Your task to perform on an android device: Go to Android settings Image 0: 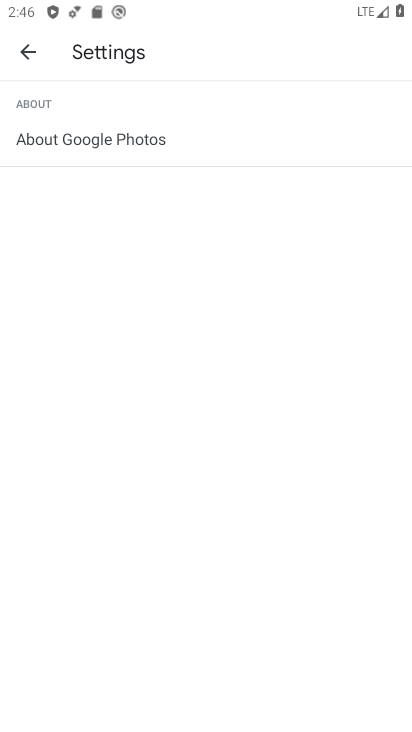
Step 0: press home button
Your task to perform on an android device: Go to Android settings Image 1: 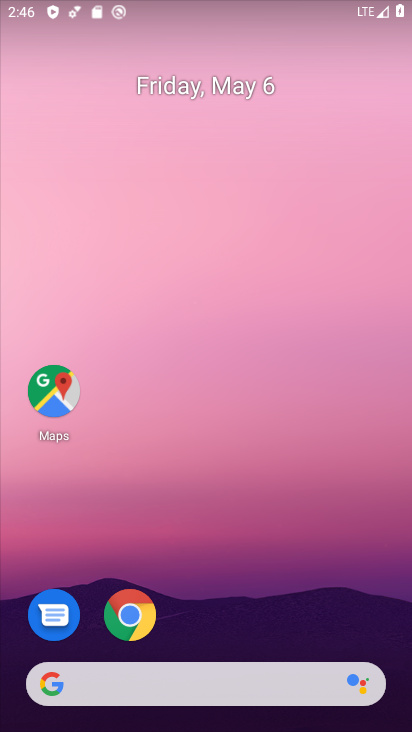
Step 1: drag from (236, 610) to (261, 46)
Your task to perform on an android device: Go to Android settings Image 2: 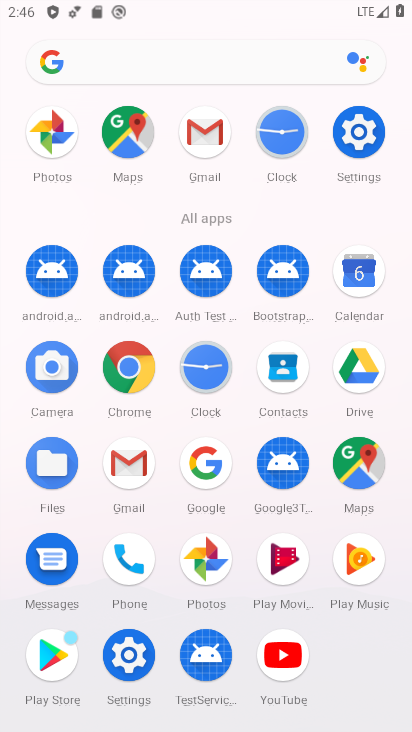
Step 2: click (122, 647)
Your task to perform on an android device: Go to Android settings Image 3: 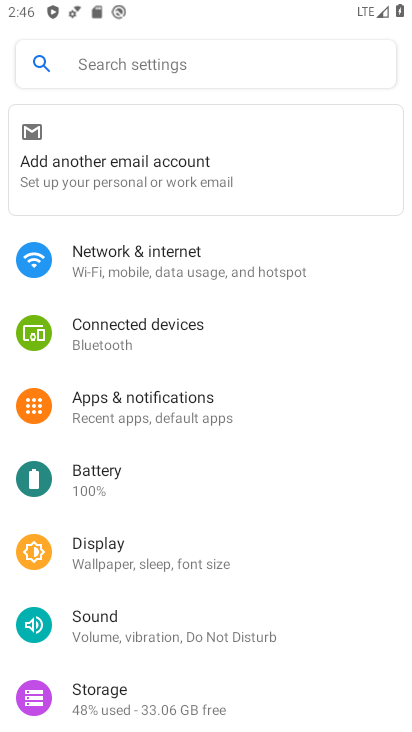
Step 3: drag from (172, 593) to (223, 316)
Your task to perform on an android device: Go to Android settings Image 4: 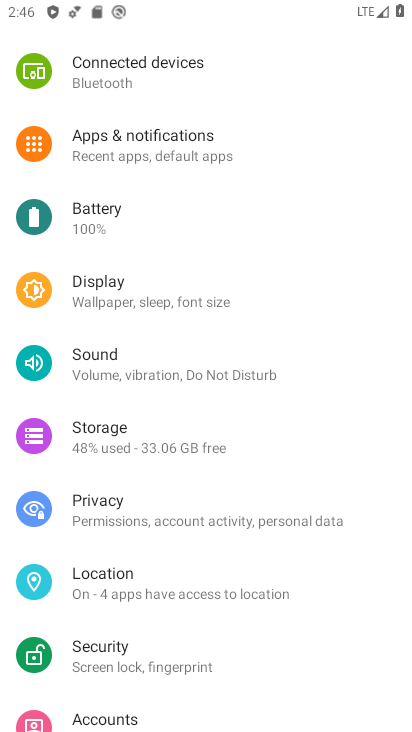
Step 4: drag from (245, 582) to (298, 187)
Your task to perform on an android device: Go to Android settings Image 5: 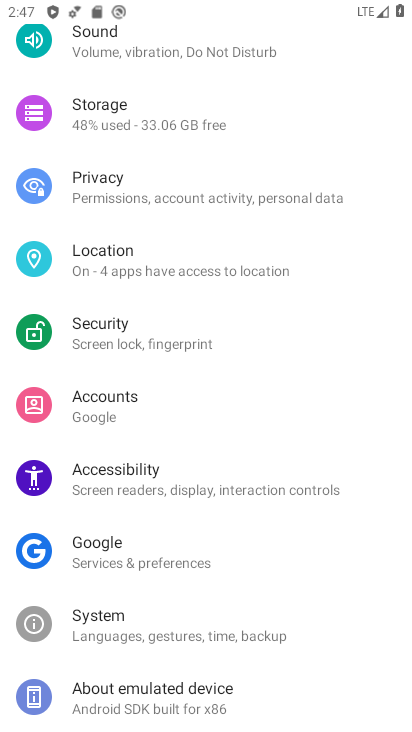
Step 5: drag from (145, 691) to (146, 577)
Your task to perform on an android device: Go to Android settings Image 6: 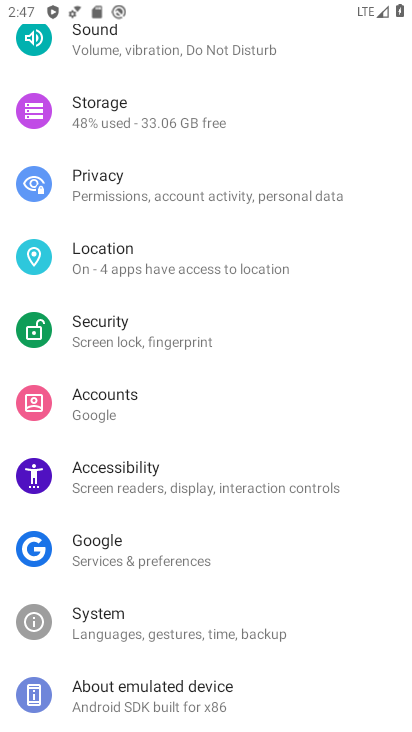
Step 6: click (137, 691)
Your task to perform on an android device: Go to Android settings Image 7: 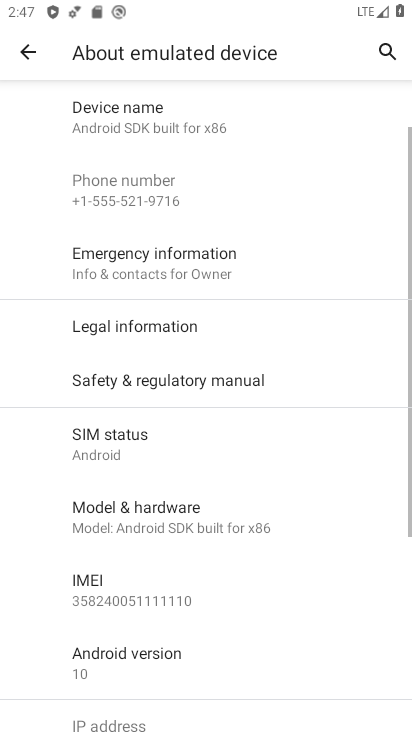
Step 7: drag from (182, 551) to (187, 317)
Your task to perform on an android device: Go to Android settings Image 8: 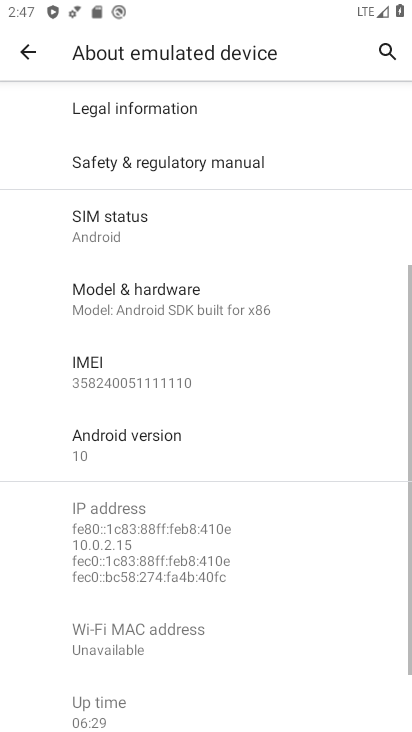
Step 8: click (128, 461)
Your task to perform on an android device: Go to Android settings Image 9: 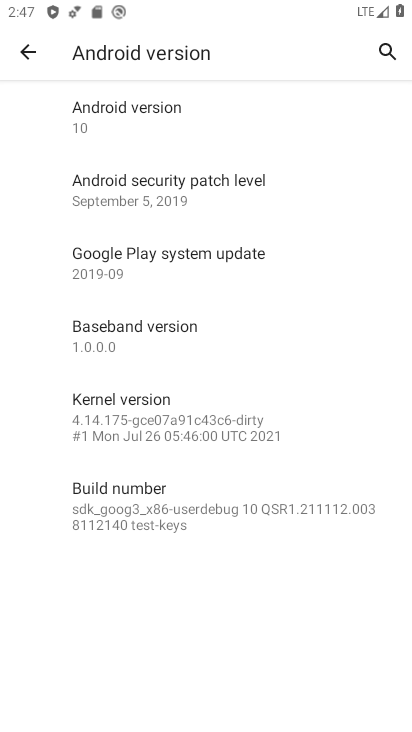
Step 9: task complete